Your task to perform on an android device: Go to CNN.com Image 0: 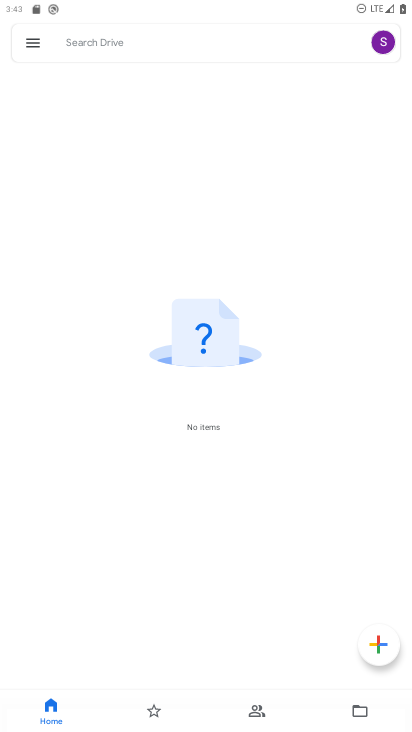
Step 0: press home button
Your task to perform on an android device: Go to CNN.com Image 1: 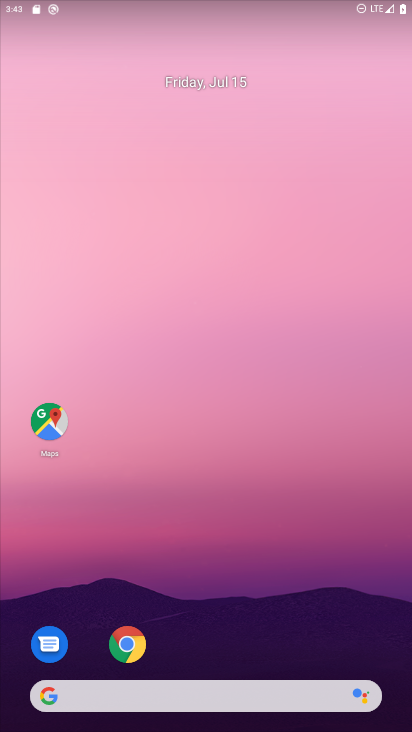
Step 1: click (223, 694)
Your task to perform on an android device: Go to CNN.com Image 2: 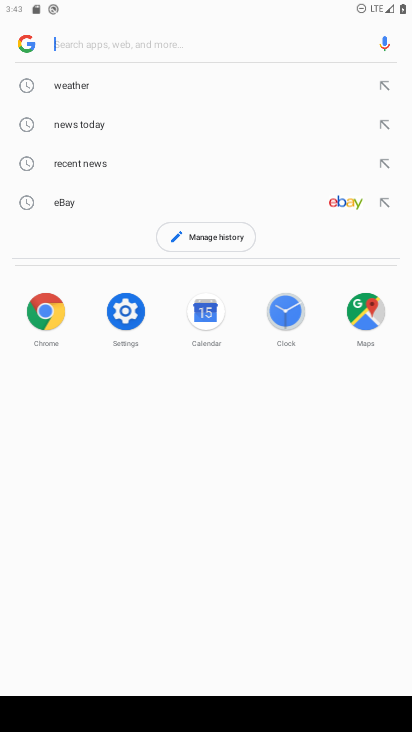
Step 2: type "CNN.com"
Your task to perform on an android device: Go to CNN.com Image 3: 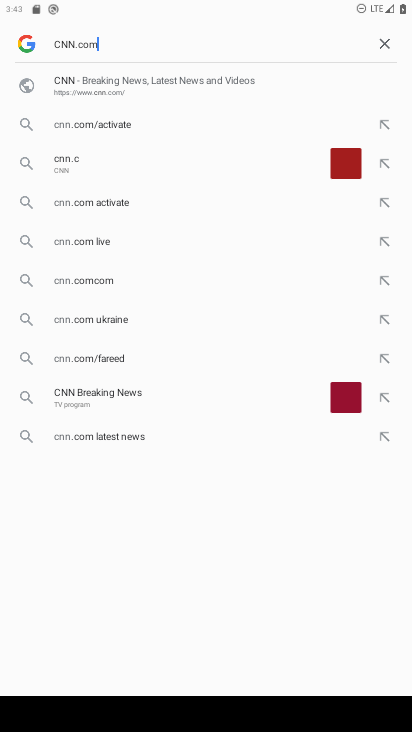
Step 3: type ""
Your task to perform on an android device: Go to CNN.com Image 4: 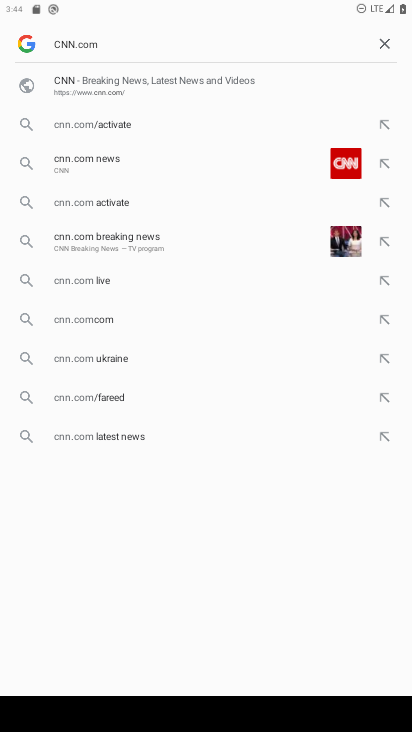
Step 4: click (140, 89)
Your task to perform on an android device: Go to CNN.com Image 5: 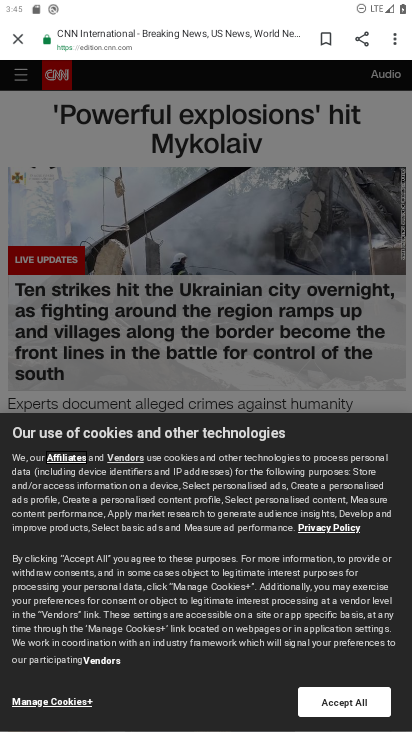
Step 5: task complete